Your task to perform on an android device: Open privacy settings Image 0: 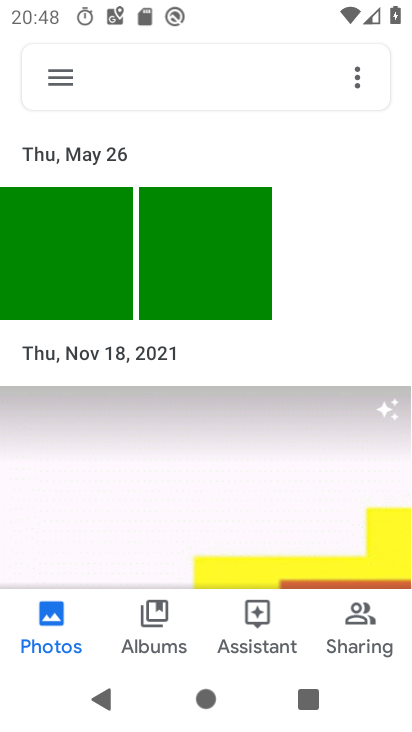
Step 0: press home button
Your task to perform on an android device: Open privacy settings Image 1: 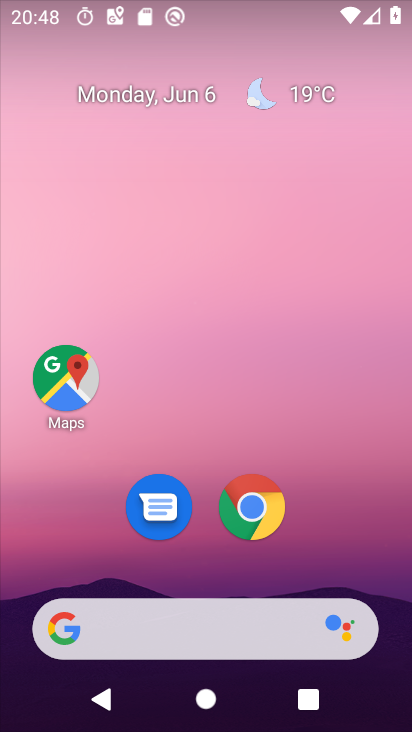
Step 1: drag from (298, 578) to (311, 137)
Your task to perform on an android device: Open privacy settings Image 2: 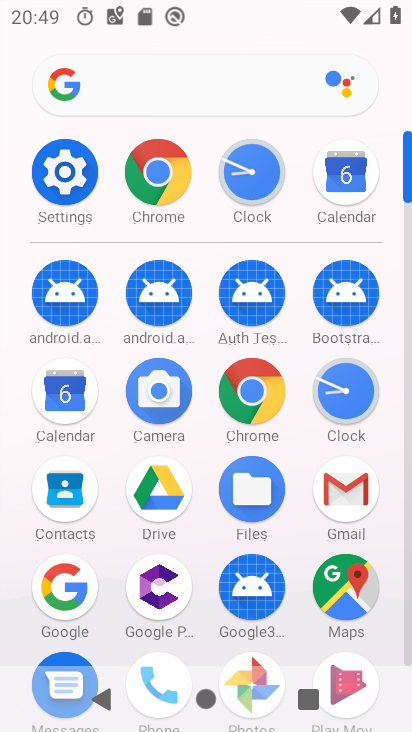
Step 2: click (69, 167)
Your task to perform on an android device: Open privacy settings Image 3: 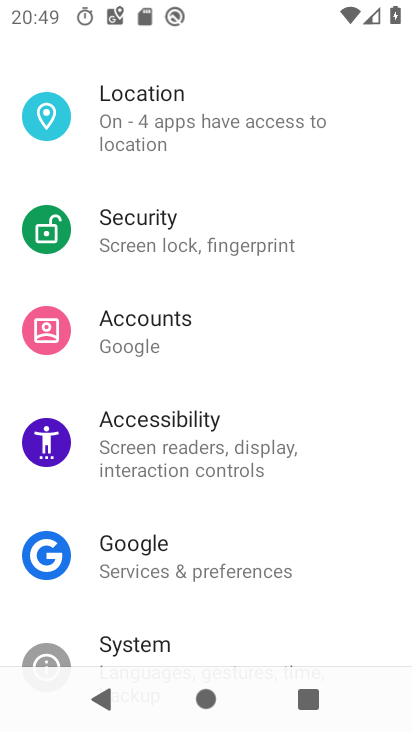
Step 3: drag from (252, 218) to (225, 559)
Your task to perform on an android device: Open privacy settings Image 4: 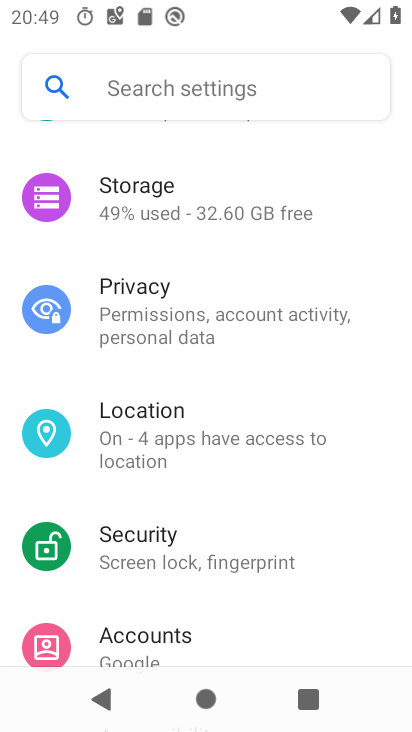
Step 4: click (155, 335)
Your task to perform on an android device: Open privacy settings Image 5: 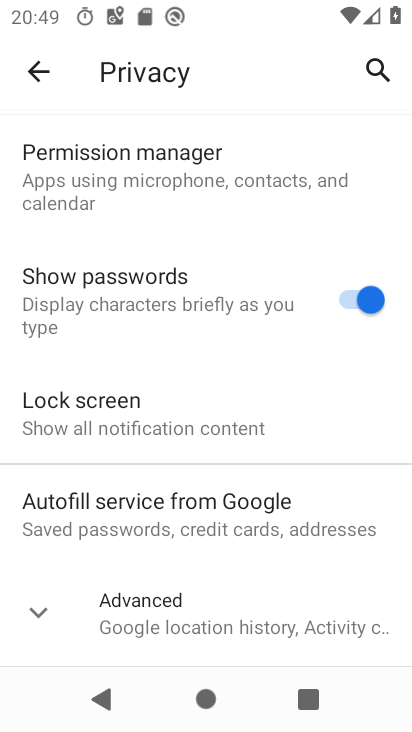
Step 5: task complete